Your task to perform on an android device: stop showing notifications on the lock screen Image 0: 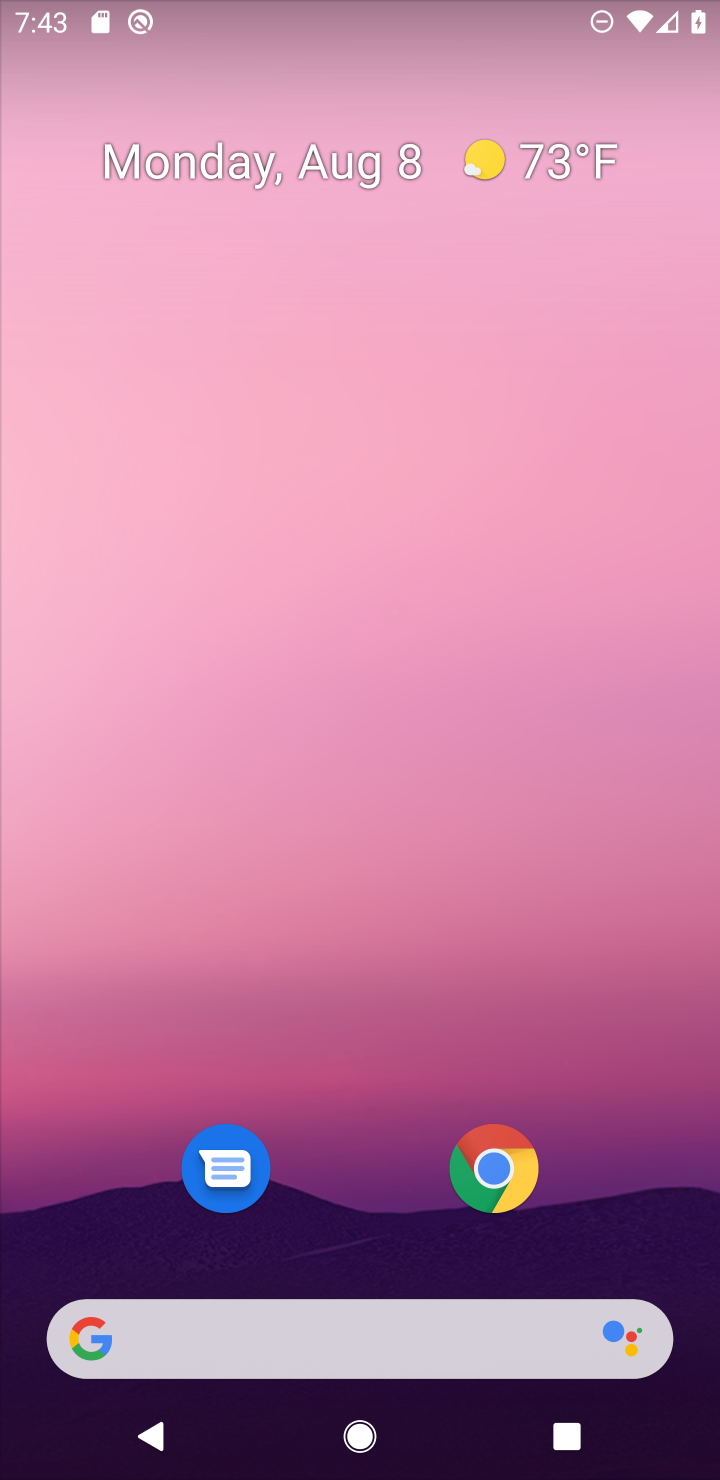
Step 0: press home button
Your task to perform on an android device: stop showing notifications on the lock screen Image 1: 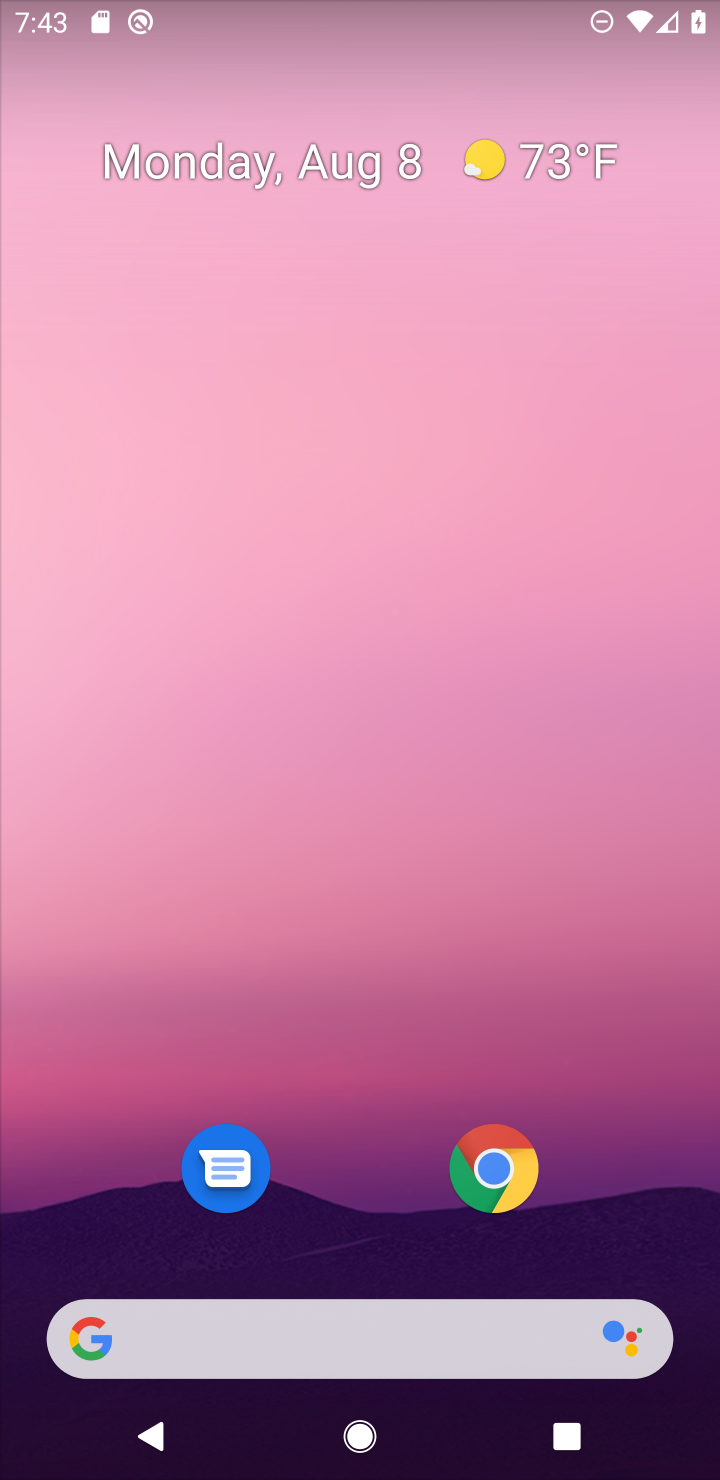
Step 1: drag from (303, 1338) to (580, 285)
Your task to perform on an android device: stop showing notifications on the lock screen Image 2: 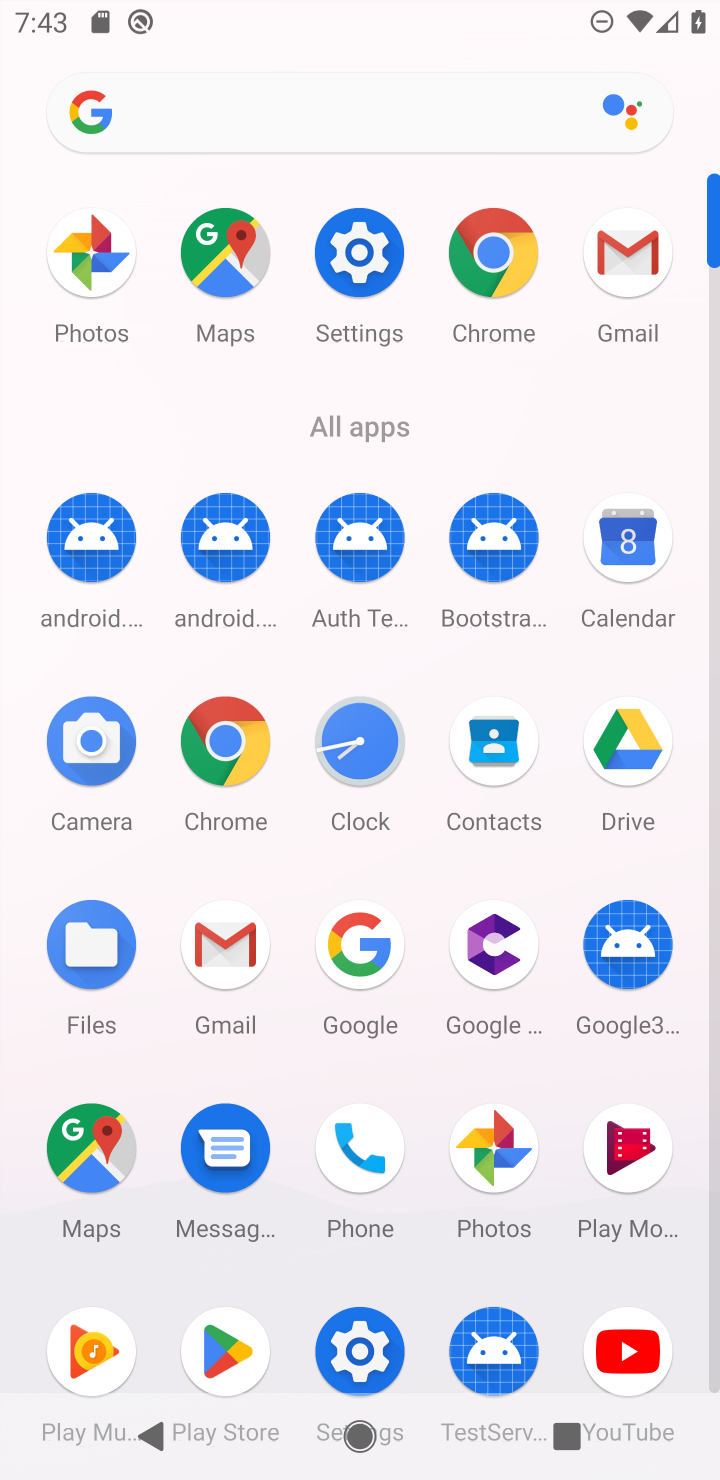
Step 2: click (347, 247)
Your task to perform on an android device: stop showing notifications on the lock screen Image 3: 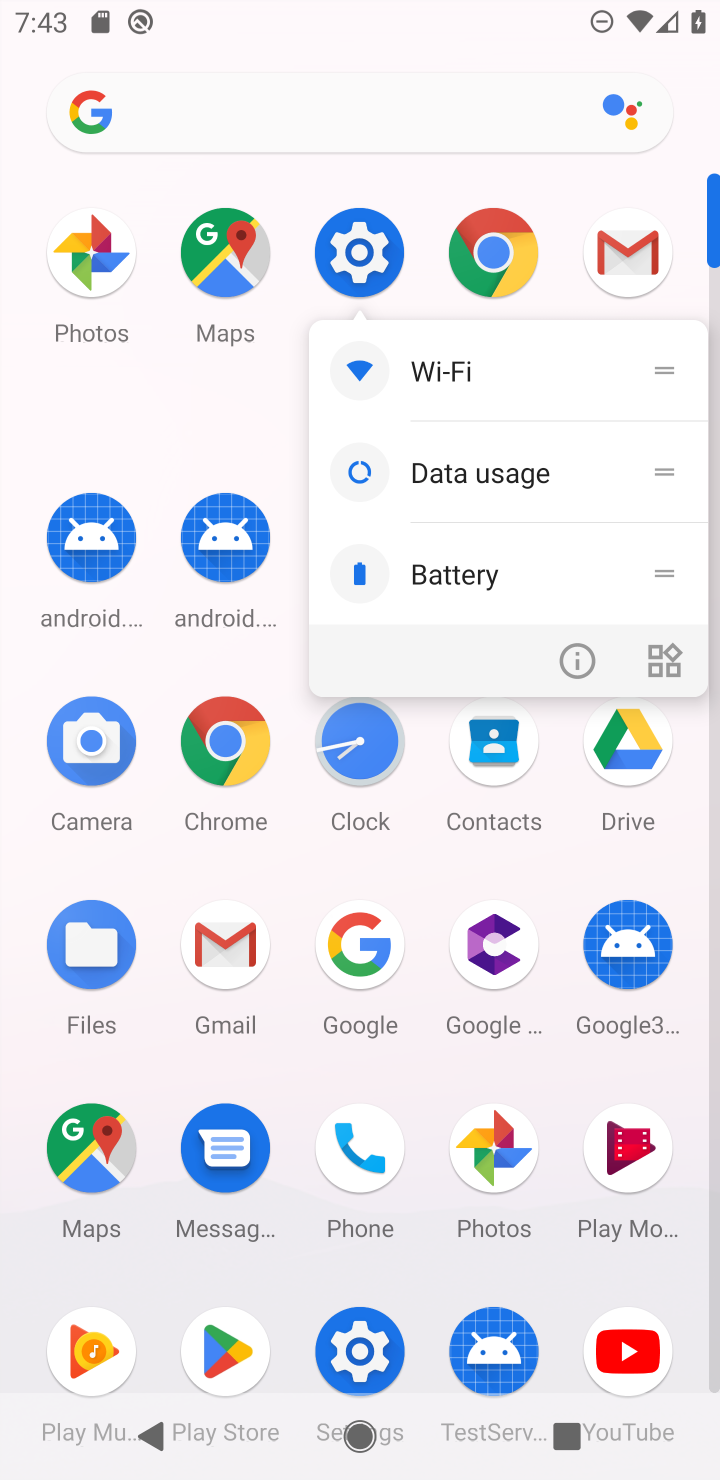
Step 3: click (347, 249)
Your task to perform on an android device: stop showing notifications on the lock screen Image 4: 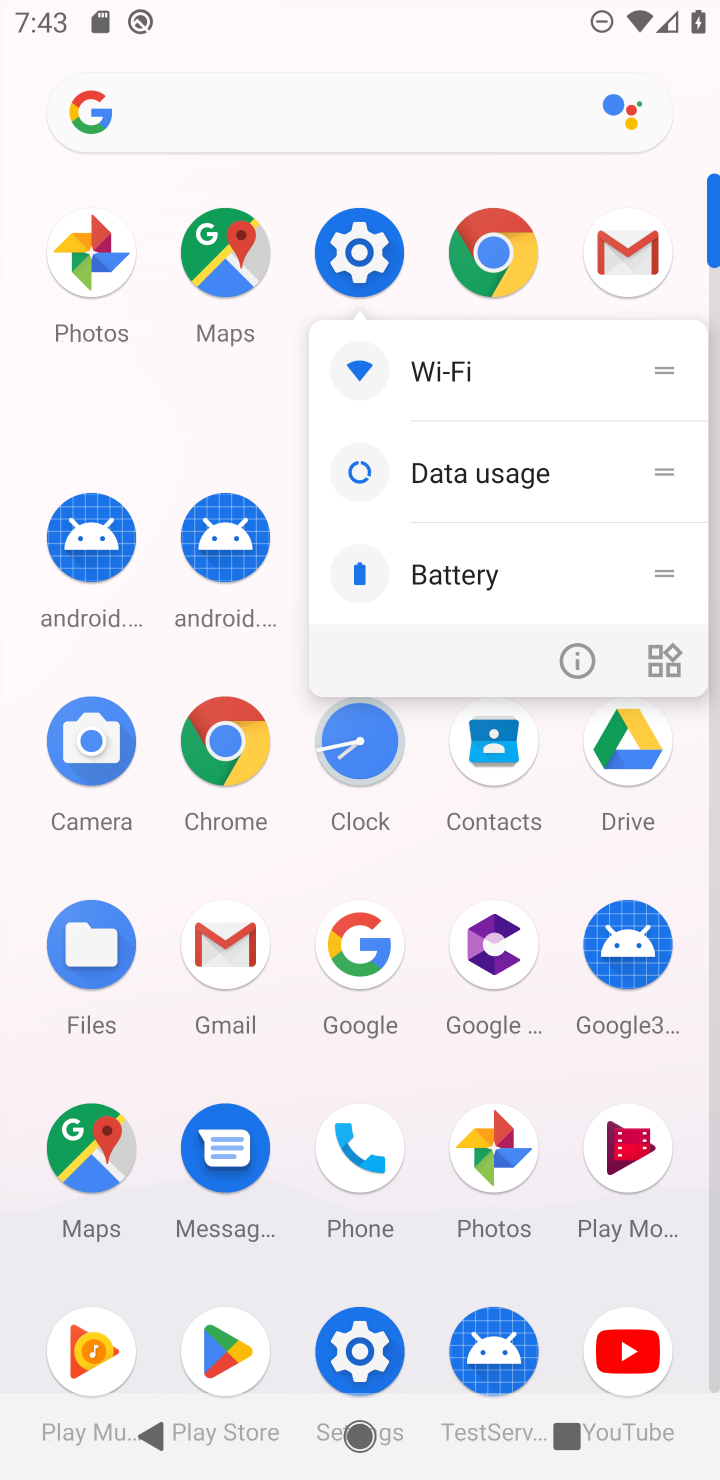
Step 4: click (347, 247)
Your task to perform on an android device: stop showing notifications on the lock screen Image 5: 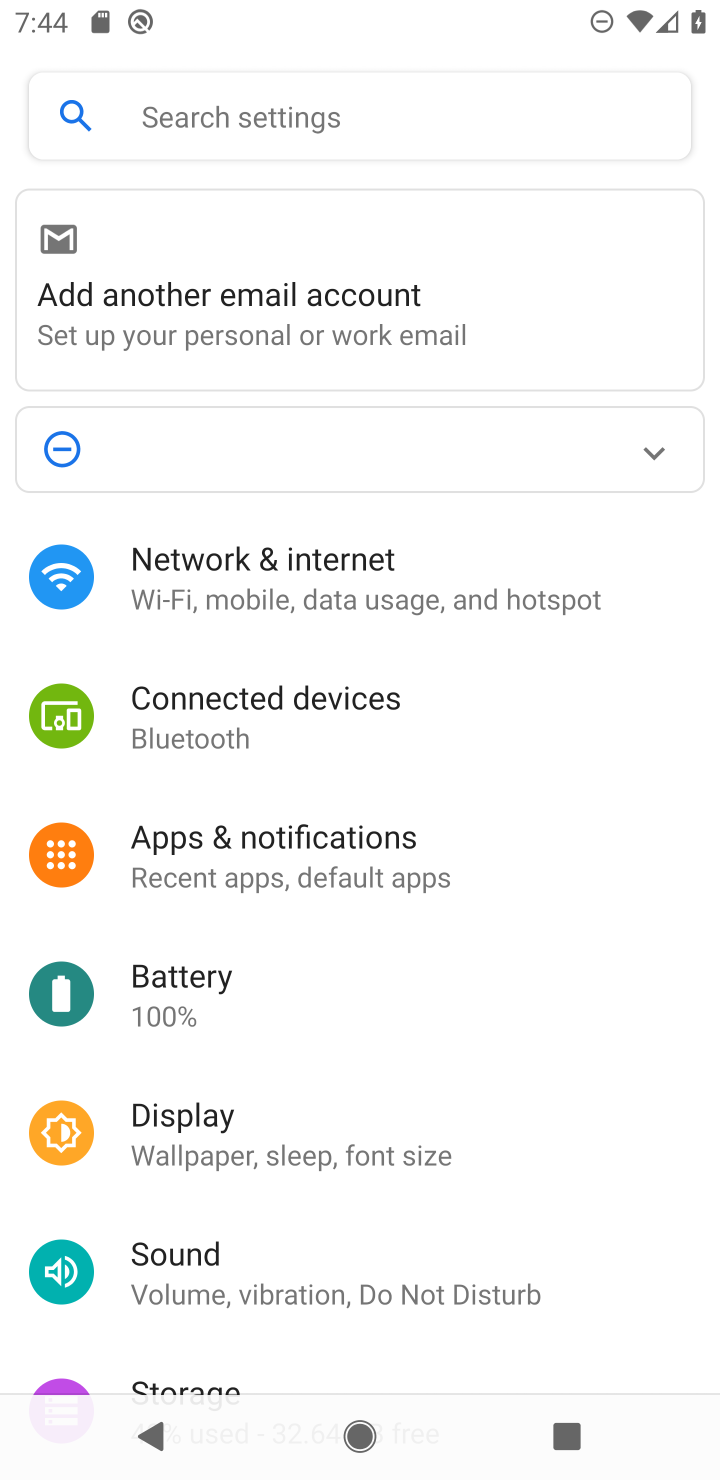
Step 5: click (280, 830)
Your task to perform on an android device: stop showing notifications on the lock screen Image 6: 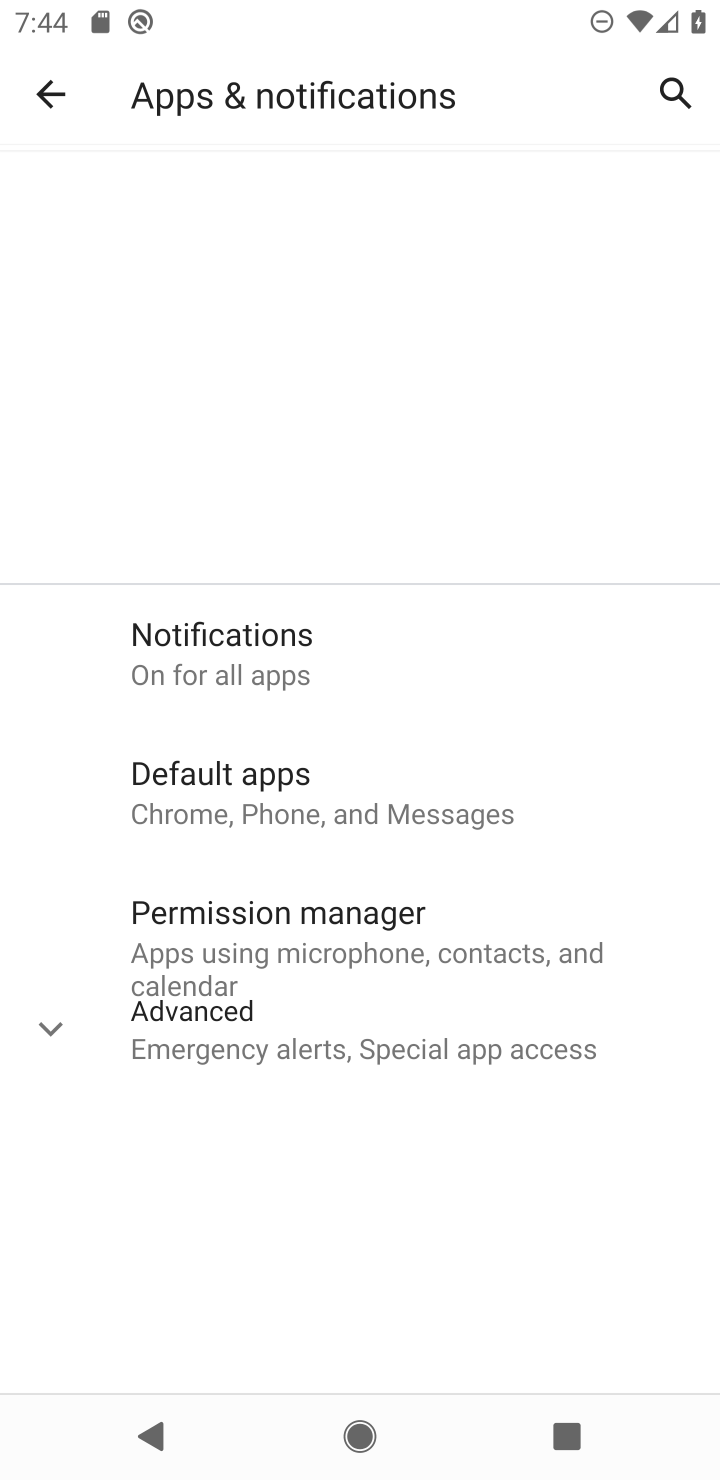
Step 6: click (321, 846)
Your task to perform on an android device: stop showing notifications on the lock screen Image 7: 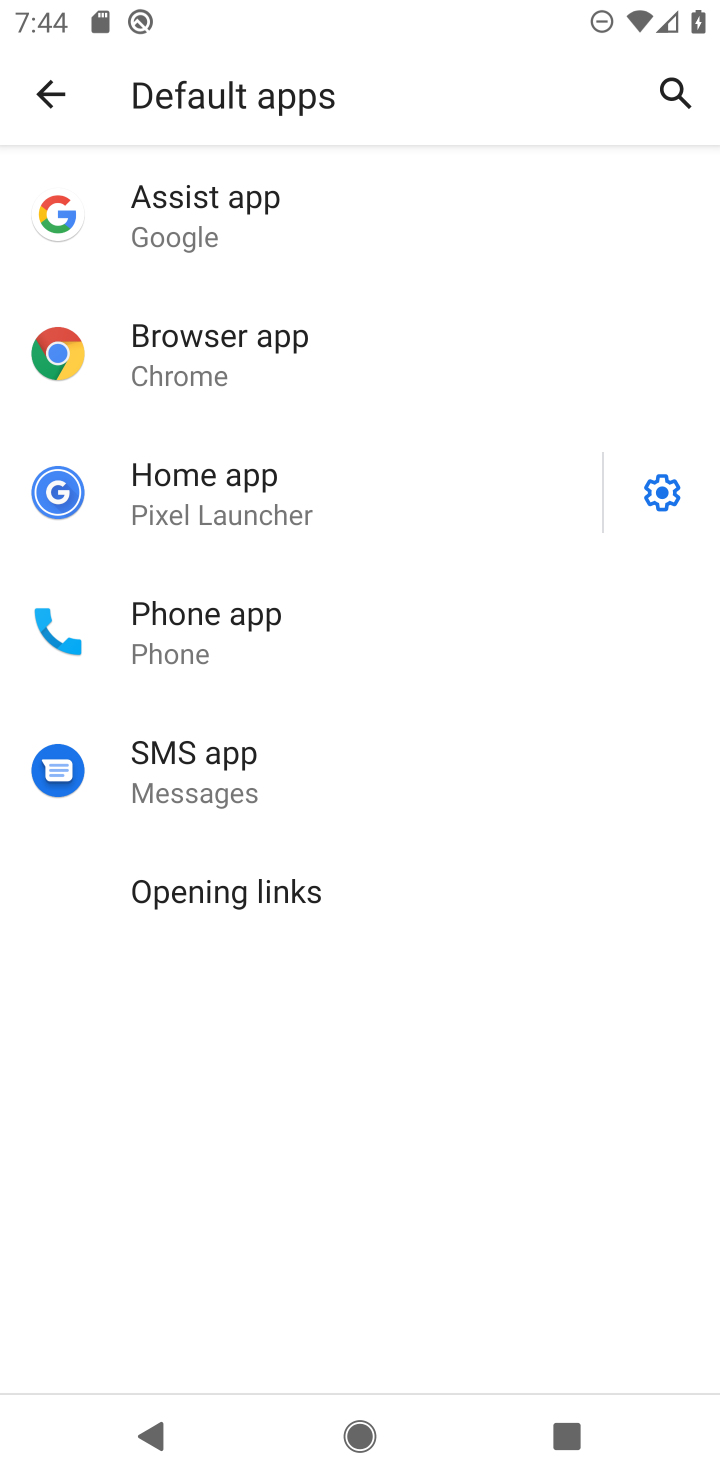
Step 7: click (33, 72)
Your task to perform on an android device: stop showing notifications on the lock screen Image 8: 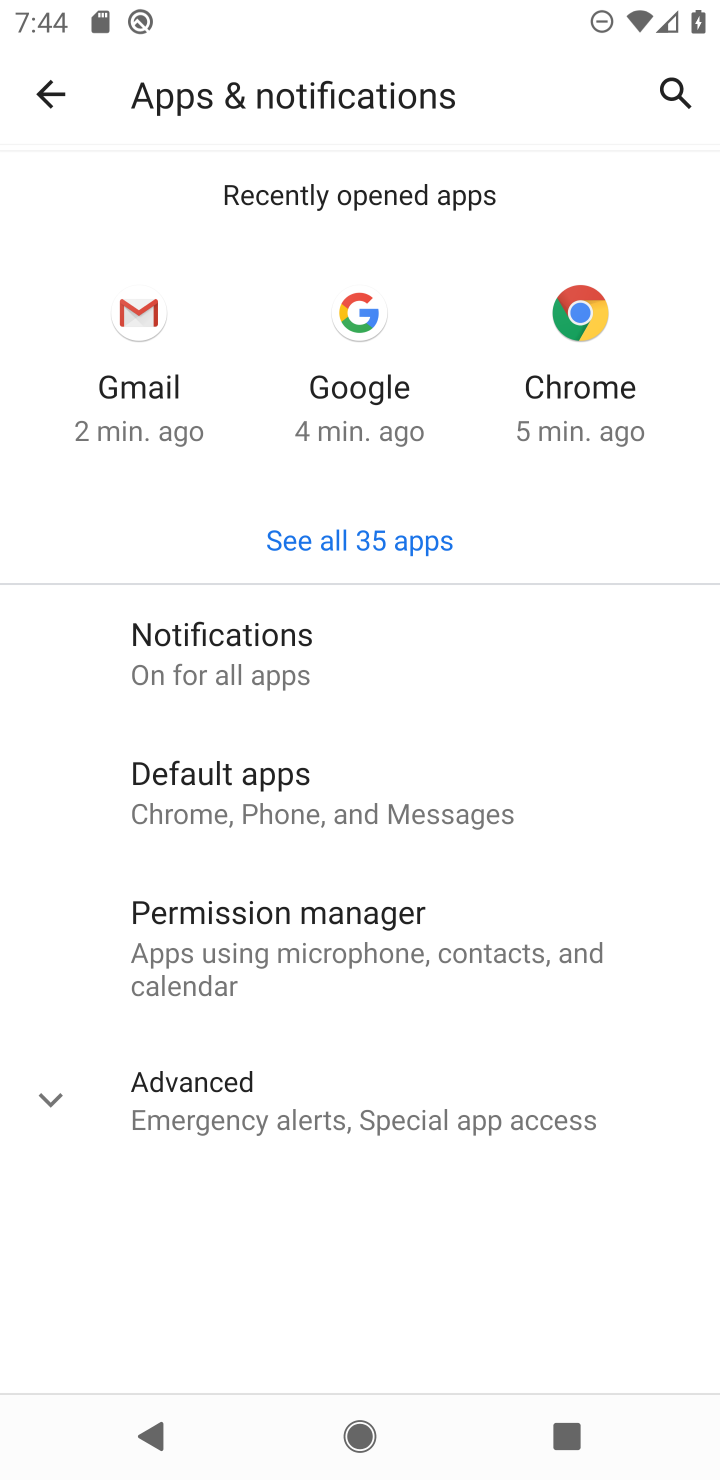
Step 8: click (230, 628)
Your task to perform on an android device: stop showing notifications on the lock screen Image 9: 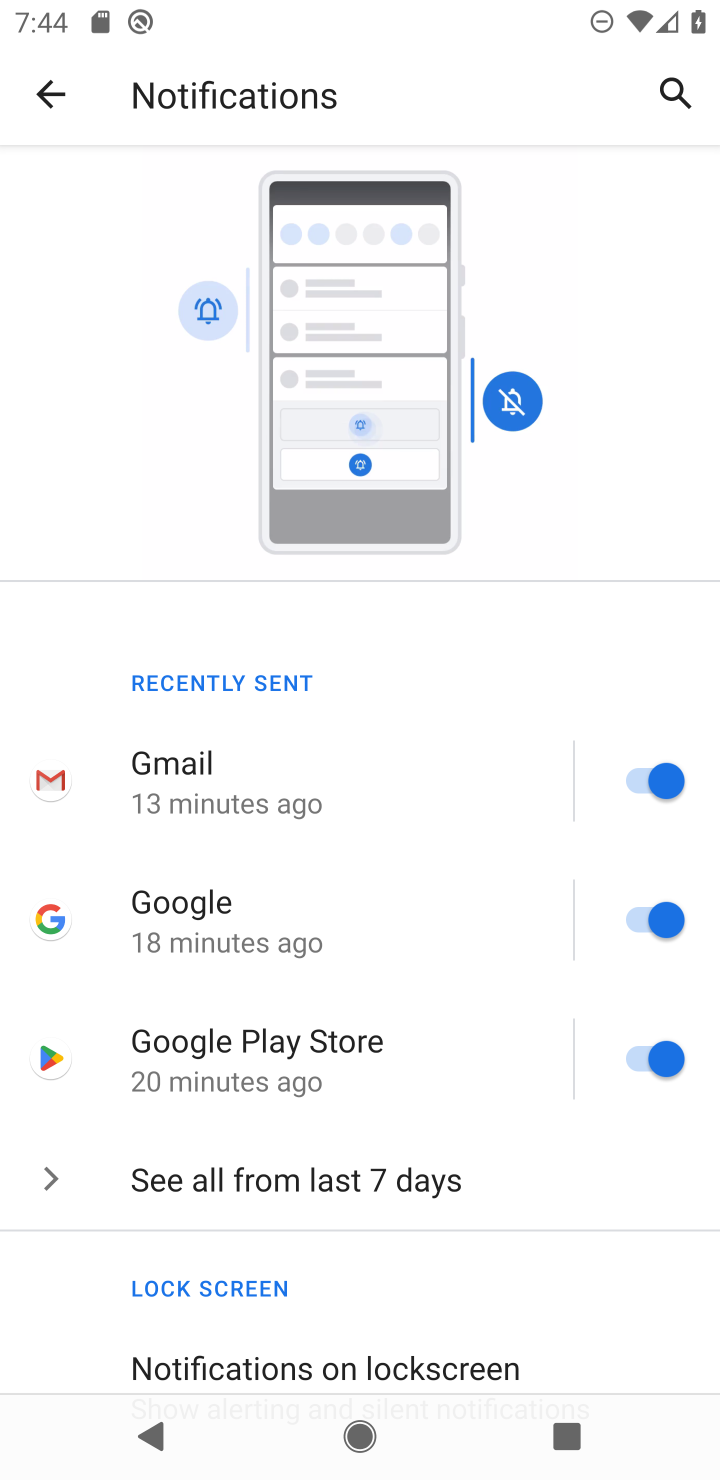
Step 9: drag from (422, 1272) to (677, 264)
Your task to perform on an android device: stop showing notifications on the lock screen Image 10: 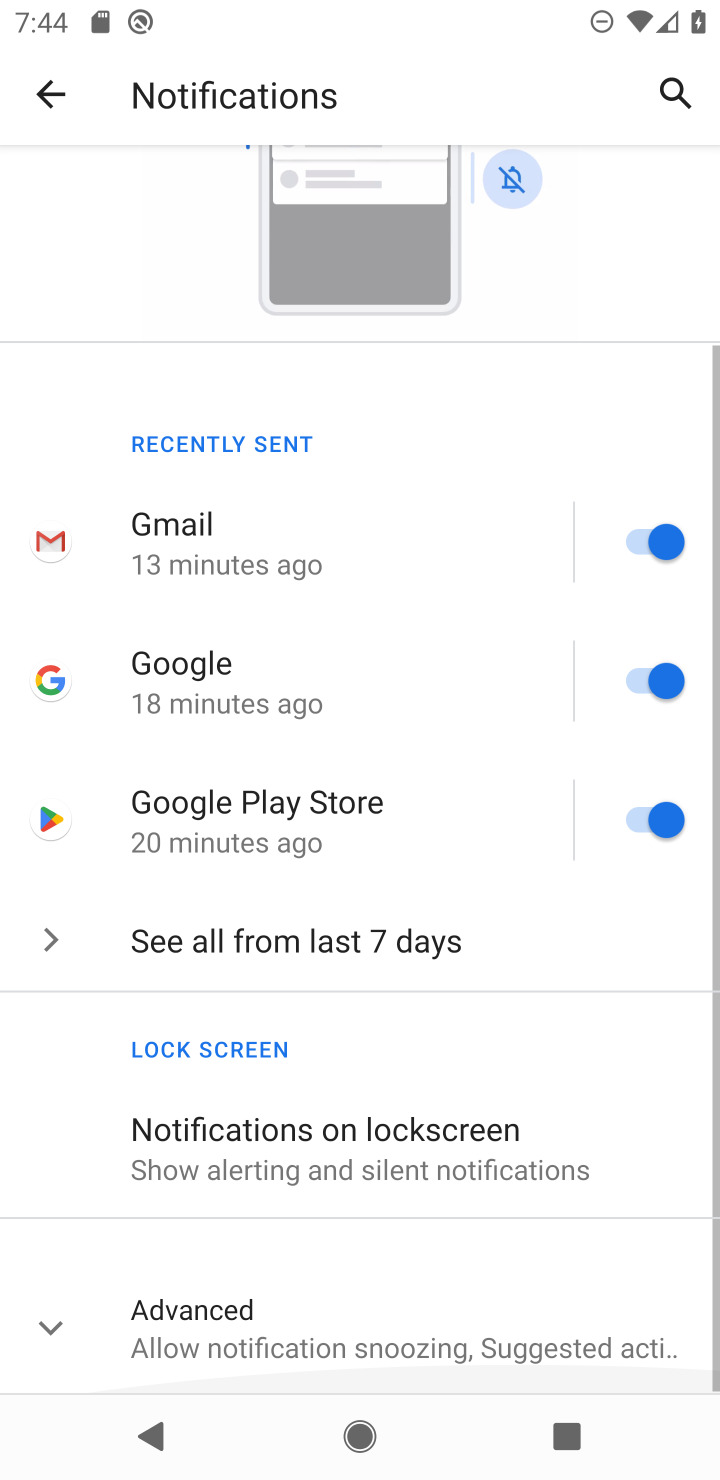
Step 10: click (341, 1149)
Your task to perform on an android device: stop showing notifications on the lock screen Image 11: 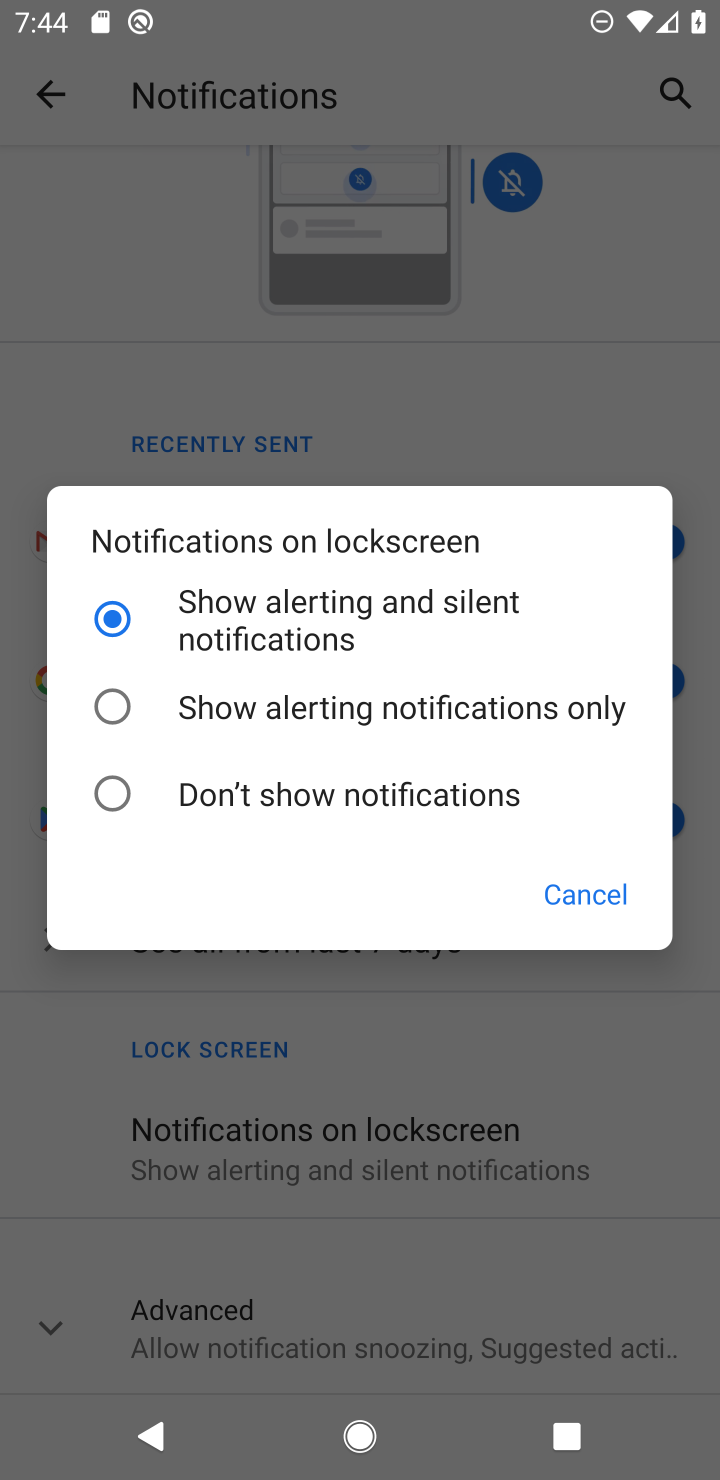
Step 11: click (115, 785)
Your task to perform on an android device: stop showing notifications on the lock screen Image 12: 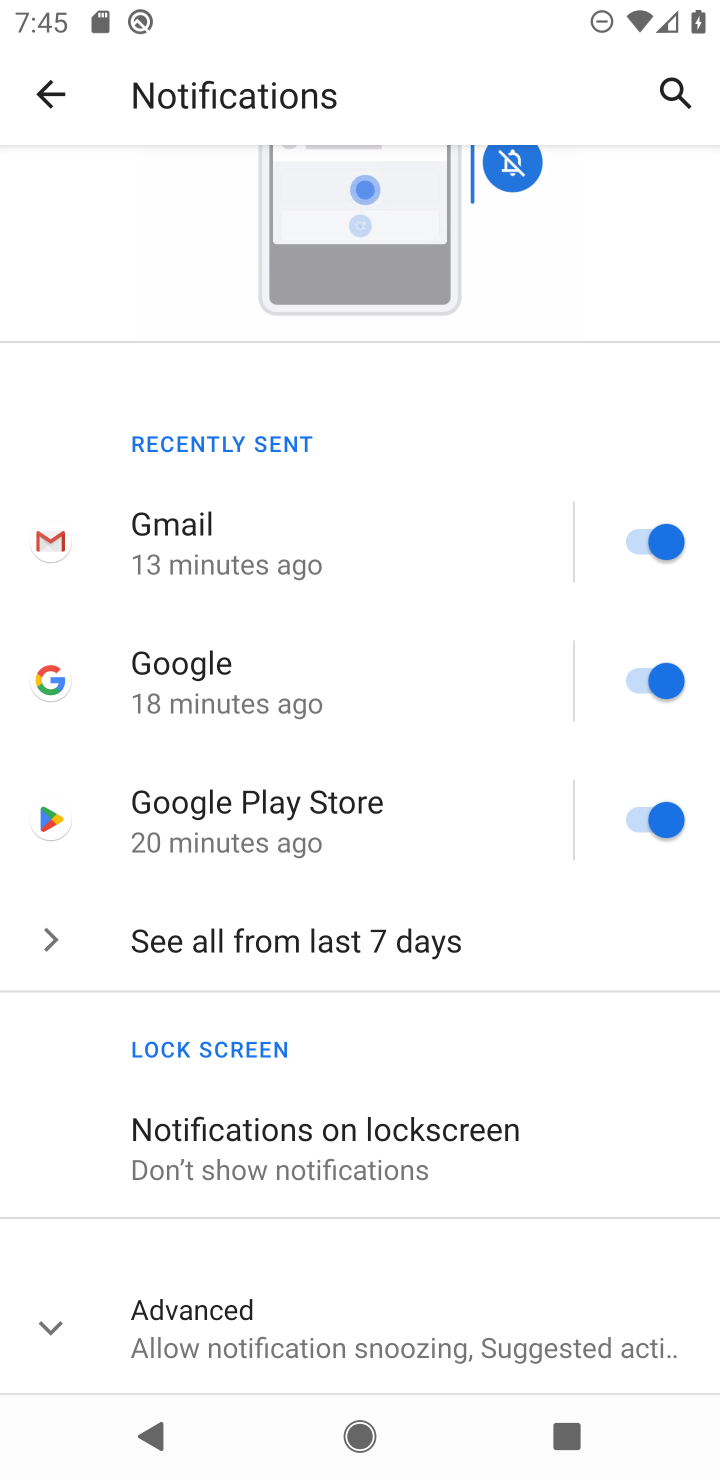
Step 12: task complete